Your task to perform on an android device: Go to network settings Image 0: 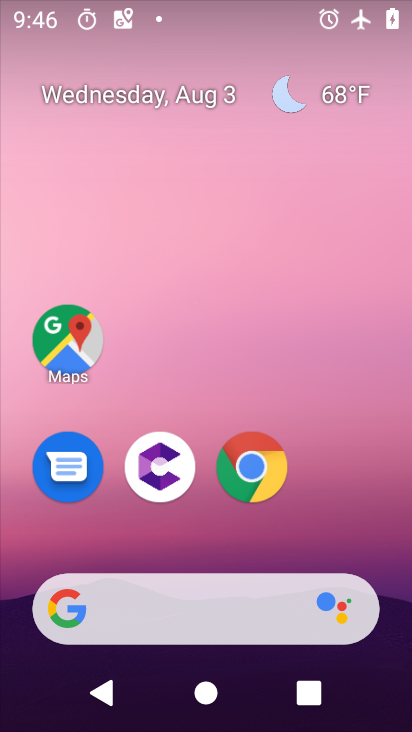
Step 0: drag from (378, 466) to (388, 21)
Your task to perform on an android device: Go to network settings Image 1: 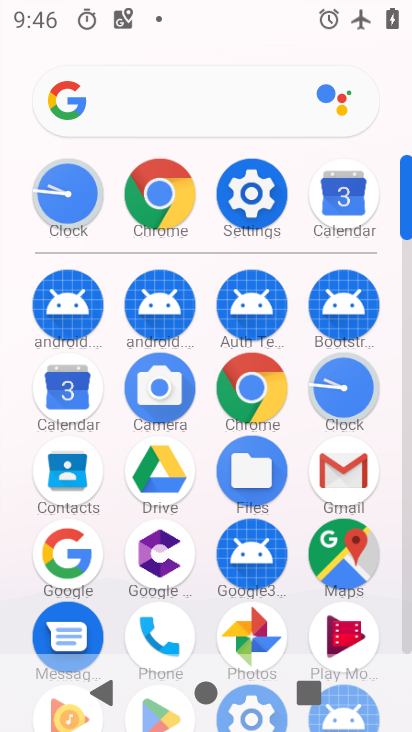
Step 1: click (253, 192)
Your task to perform on an android device: Go to network settings Image 2: 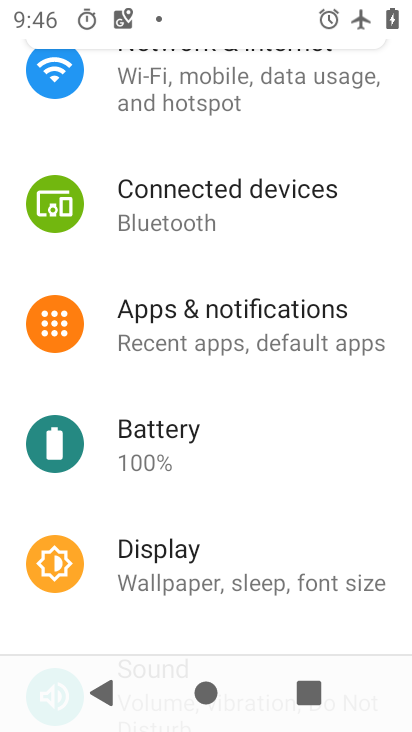
Step 2: drag from (306, 147) to (311, 519)
Your task to perform on an android device: Go to network settings Image 3: 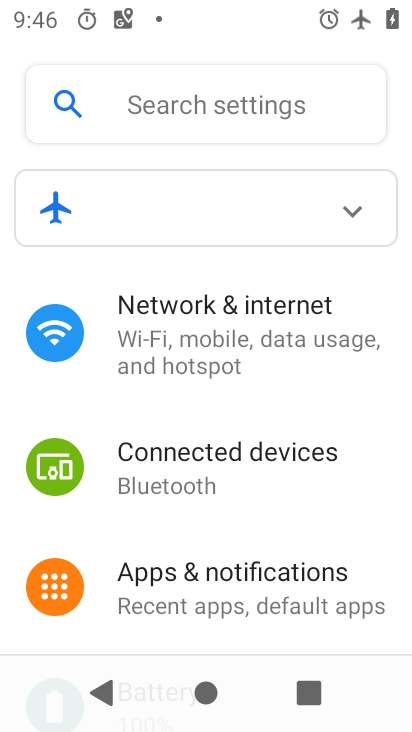
Step 3: click (243, 306)
Your task to perform on an android device: Go to network settings Image 4: 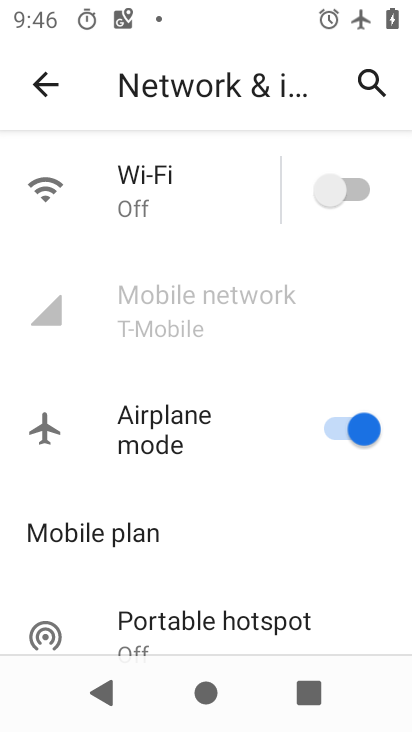
Step 4: task complete